Your task to perform on an android device: Open privacy settings Image 0: 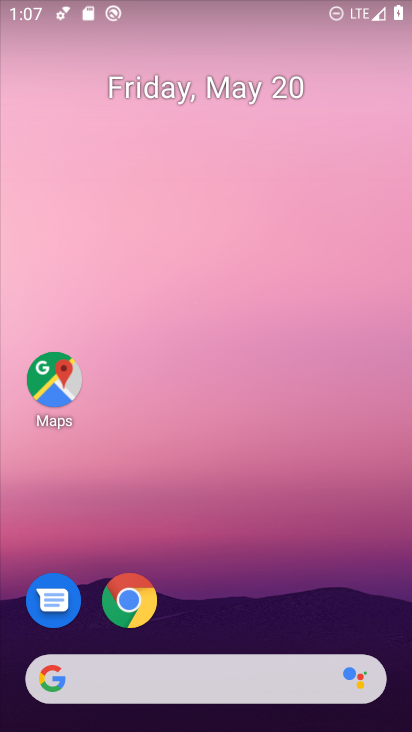
Step 0: drag from (264, 692) to (236, 69)
Your task to perform on an android device: Open privacy settings Image 1: 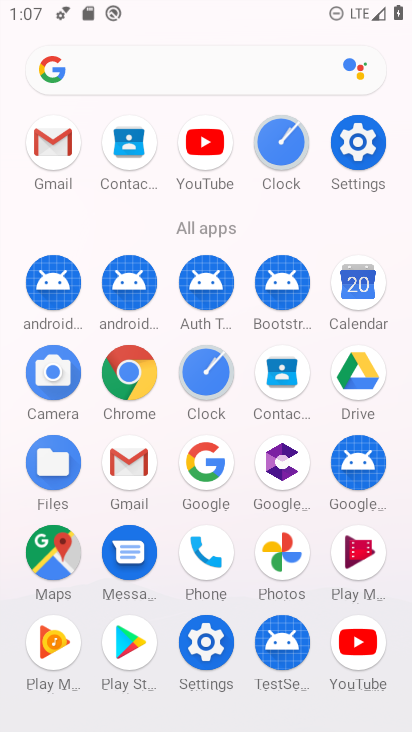
Step 1: click (344, 160)
Your task to perform on an android device: Open privacy settings Image 2: 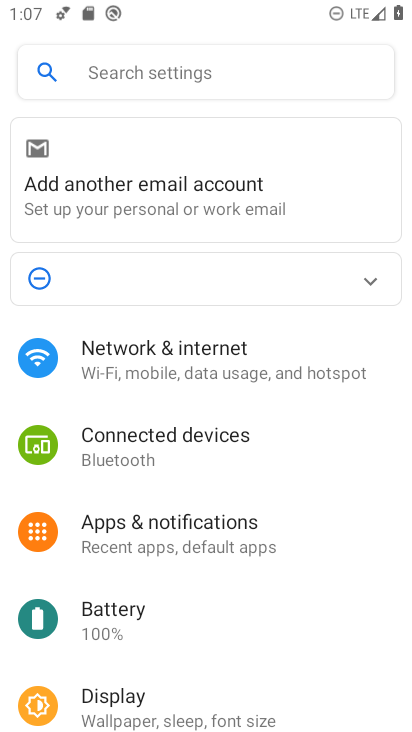
Step 2: drag from (139, 624) to (120, 27)
Your task to perform on an android device: Open privacy settings Image 3: 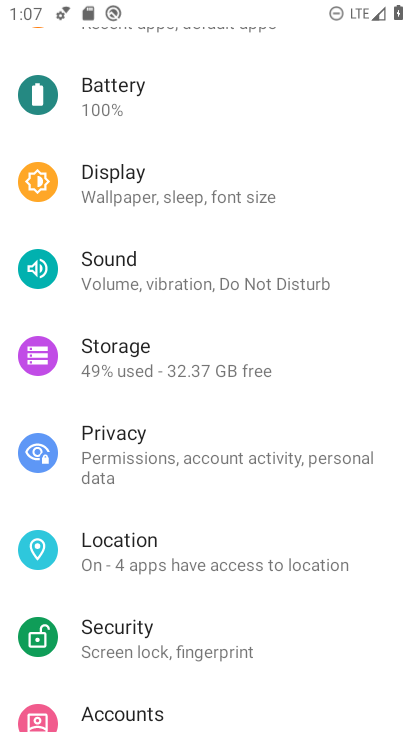
Step 3: click (115, 470)
Your task to perform on an android device: Open privacy settings Image 4: 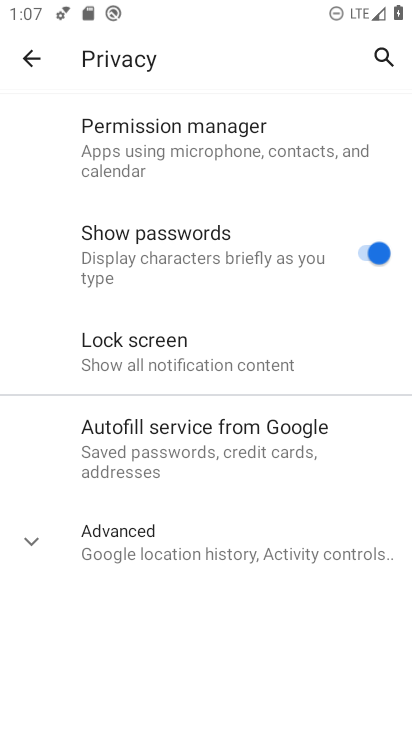
Step 4: task complete